Your task to perform on an android device: turn on the 24-hour format for clock Image 0: 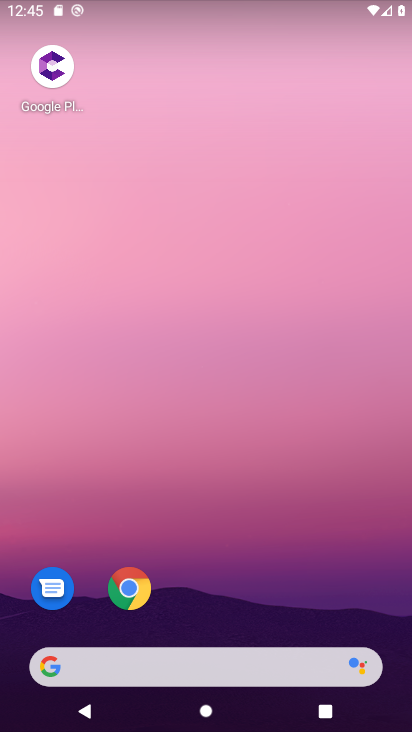
Step 0: drag from (187, 585) to (242, 128)
Your task to perform on an android device: turn on the 24-hour format for clock Image 1: 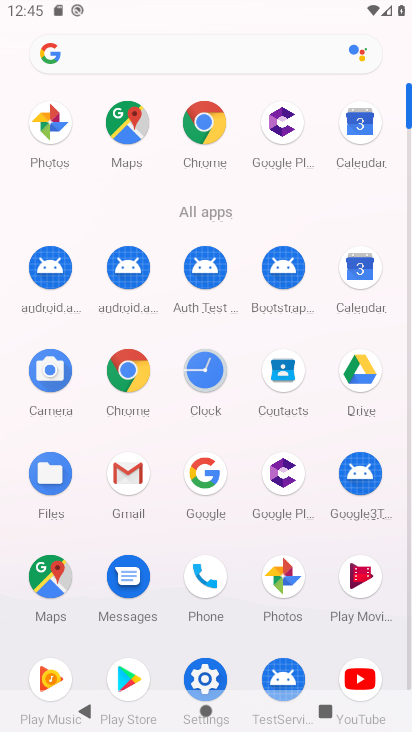
Step 1: drag from (239, 503) to (257, 368)
Your task to perform on an android device: turn on the 24-hour format for clock Image 2: 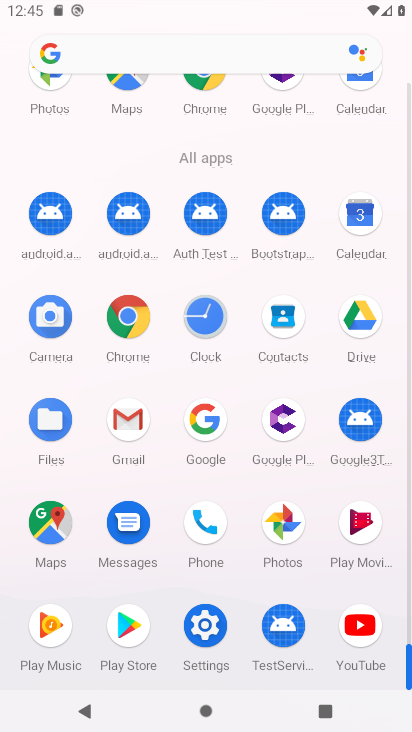
Step 2: click (215, 318)
Your task to perform on an android device: turn on the 24-hour format for clock Image 3: 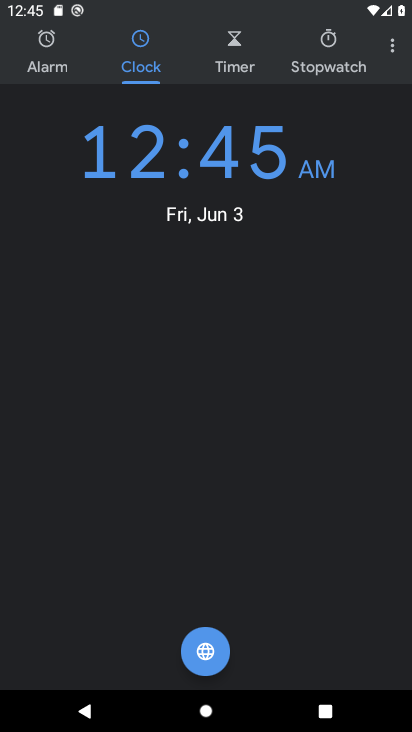
Step 3: click (384, 53)
Your task to perform on an android device: turn on the 24-hour format for clock Image 4: 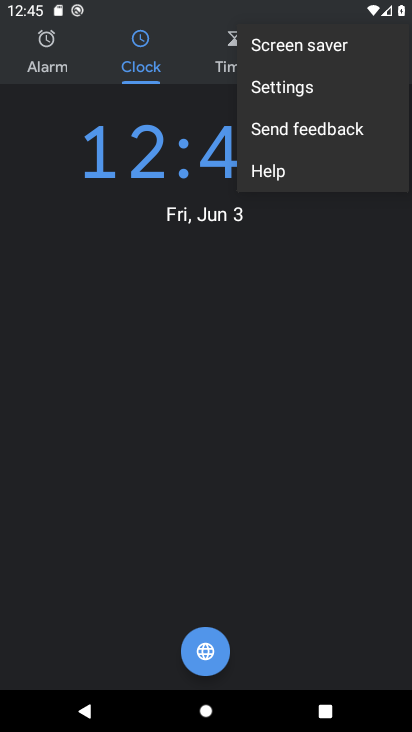
Step 4: click (293, 87)
Your task to perform on an android device: turn on the 24-hour format for clock Image 5: 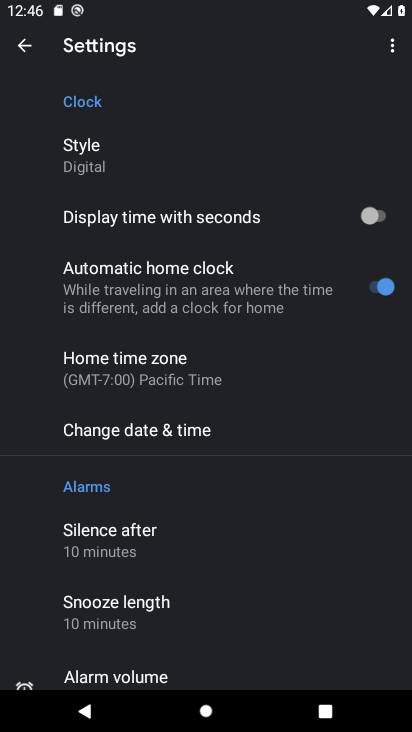
Step 5: click (176, 433)
Your task to perform on an android device: turn on the 24-hour format for clock Image 6: 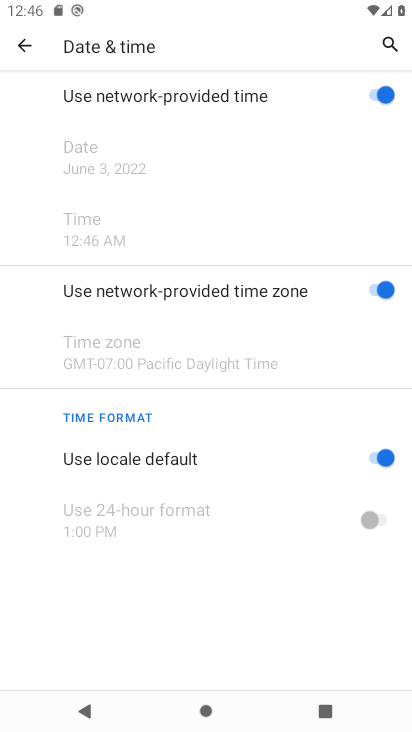
Step 6: task complete